Your task to perform on an android device: Open accessibility settings Image 0: 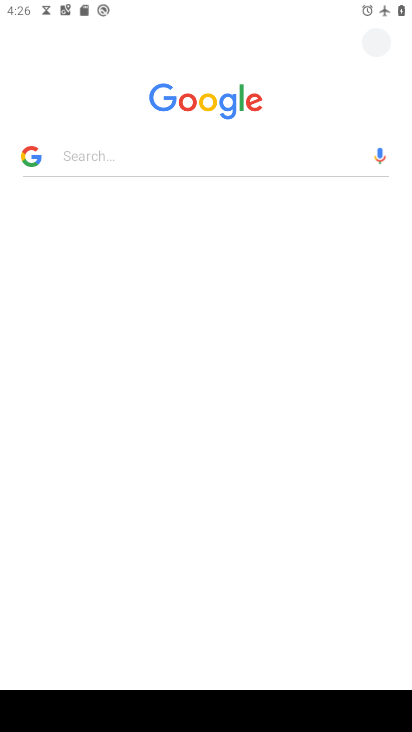
Step 0: click (411, 184)
Your task to perform on an android device: Open accessibility settings Image 1: 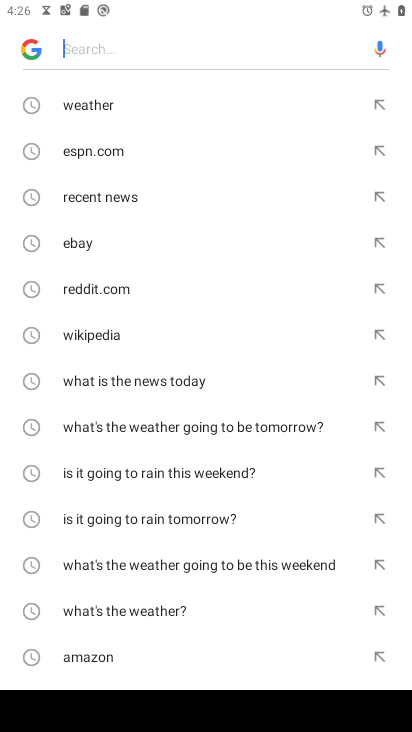
Step 1: press back button
Your task to perform on an android device: Open accessibility settings Image 2: 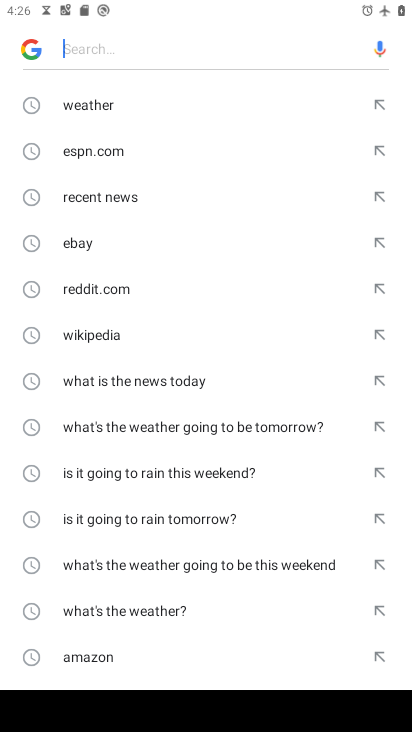
Step 2: press back button
Your task to perform on an android device: Open accessibility settings Image 3: 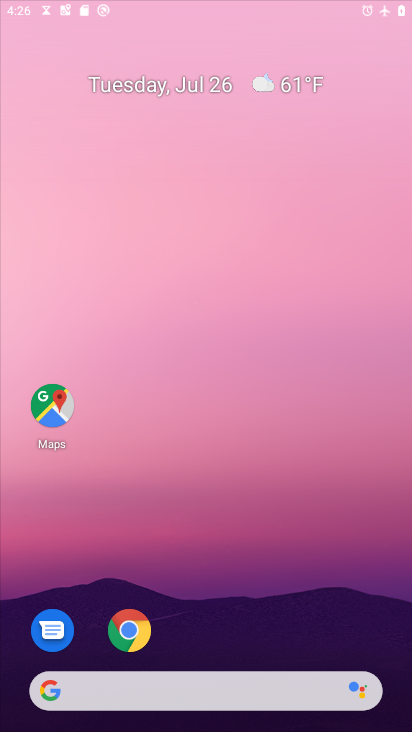
Step 3: press back button
Your task to perform on an android device: Open accessibility settings Image 4: 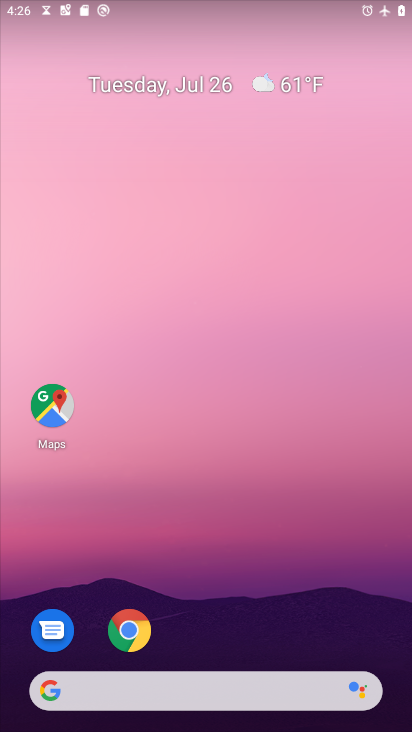
Step 4: drag from (91, 259) to (85, 30)
Your task to perform on an android device: Open accessibility settings Image 5: 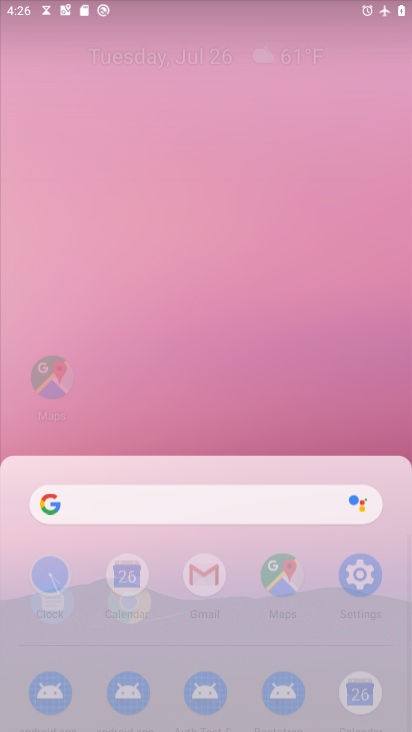
Step 5: drag from (152, 477) to (158, 128)
Your task to perform on an android device: Open accessibility settings Image 6: 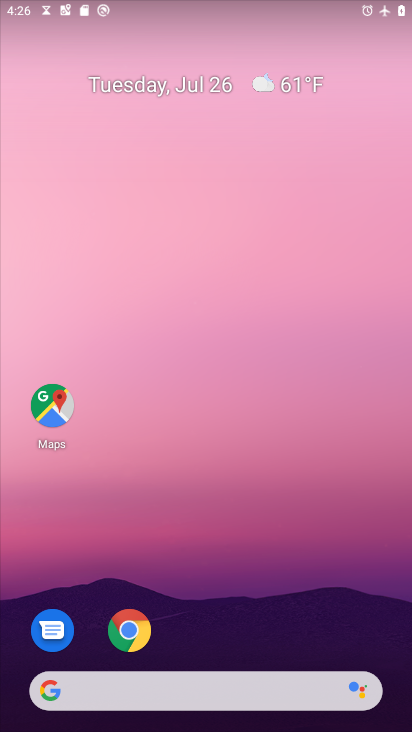
Step 6: click (163, 56)
Your task to perform on an android device: Open accessibility settings Image 7: 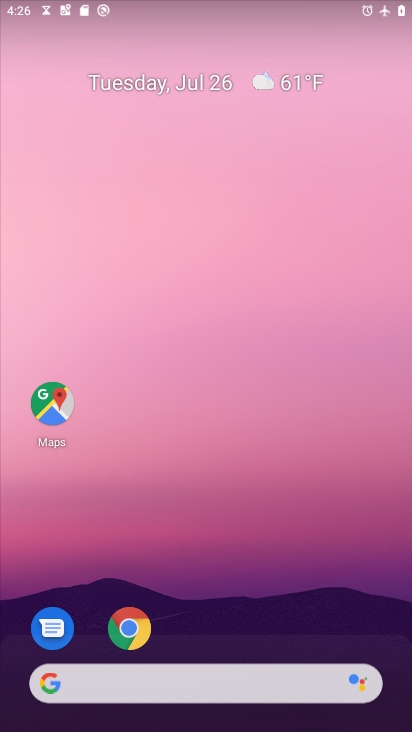
Step 7: drag from (253, 370) to (169, 79)
Your task to perform on an android device: Open accessibility settings Image 8: 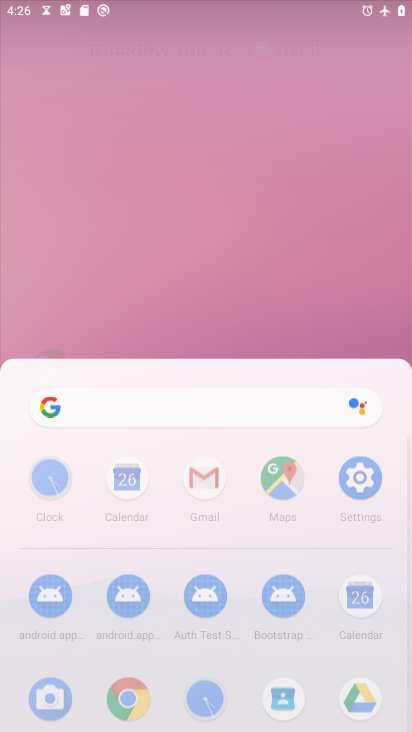
Step 8: drag from (236, 462) to (218, 102)
Your task to perform on an android device: Open accessibility settings Image 9: 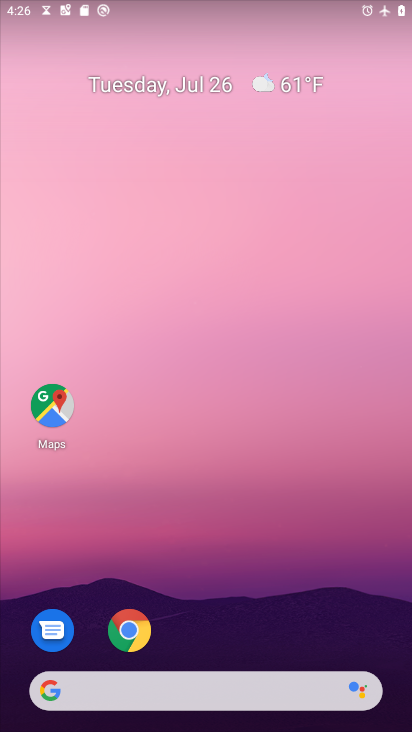
Step 9: drag from (173, 356) to (176, 97)
Your task to perform on an android device: Open accessibility settings Image 10: 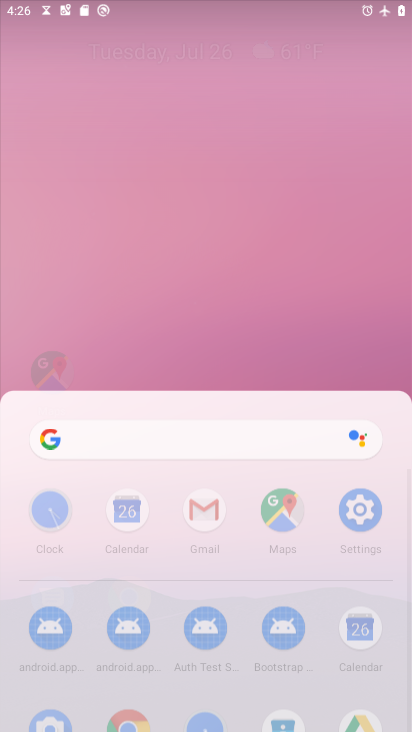
Step 10: drag from (180, 305) to (155, 47)
Your task to perform on an android device: Open accessibility settings Image 11: 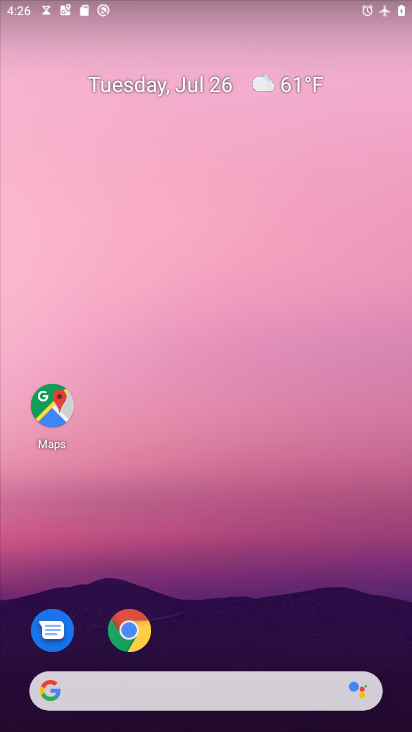
Step 11: drag from (163, 396) to (137, 181)
Your task to perform on an android device: Open accessibility settings Image 12: 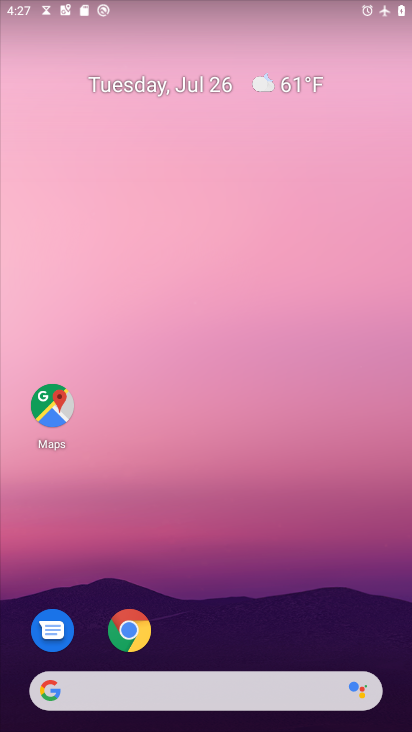
Step 12: drag from (186, 612) to (128, 22)
Your task to perform on an android device: Open accessibility settings Image 13: 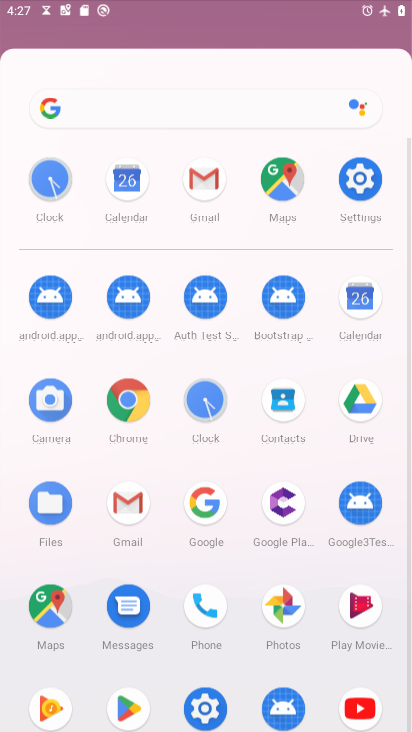
Step 13: drag from (173, 423) to (216, 41)
Your task to perform on an android device: Open accessibility settings Image 14: 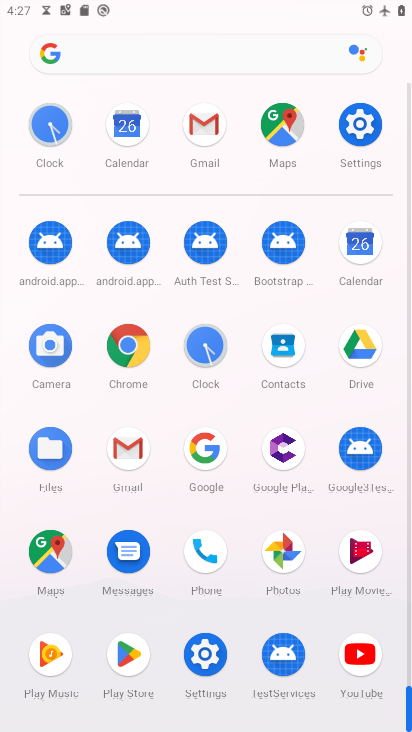
Step 14: drag from (281, 400) to (229, 88)
Your task to perform on an android device: Open accessibility settings Image 15: 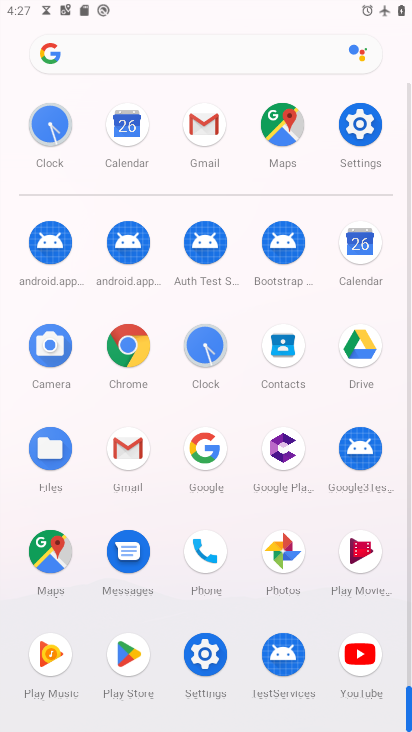
Step 15: click (356, 136)
Your task to perform on an android device: Open accessibility settings Image 16: 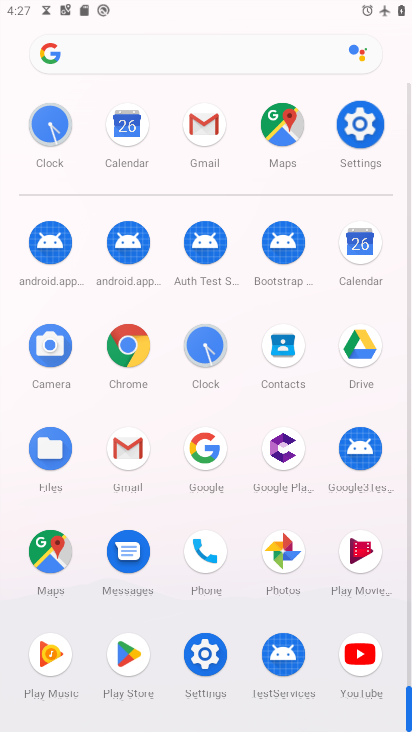
Step 16: click (359, 132)
Your task to perform on an android device: Open accessibility settings Image 17: 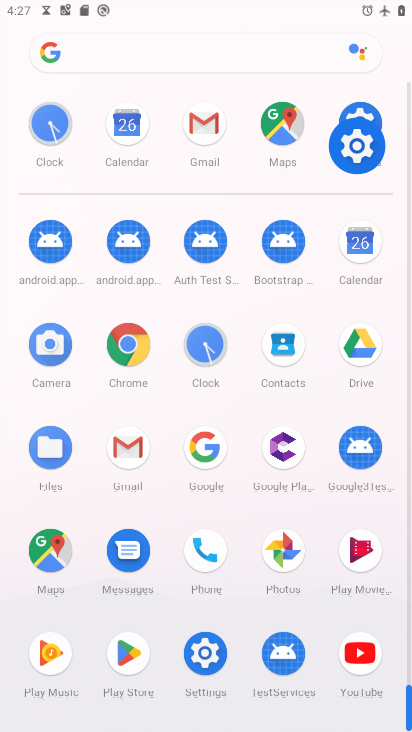
Step 17: click (362, 134)
Your task to perform on an android device: Open accessibility settings Image 18: 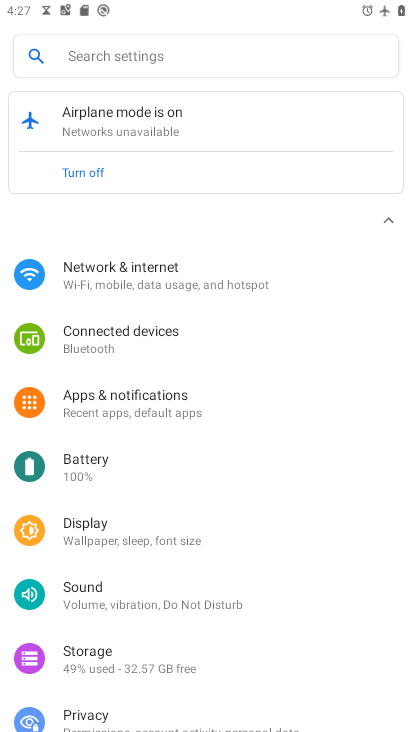
Step 18: drag from (151, 594) to (199, 197)
Your task to perform on an android device: Open accessibility settings Image 19: 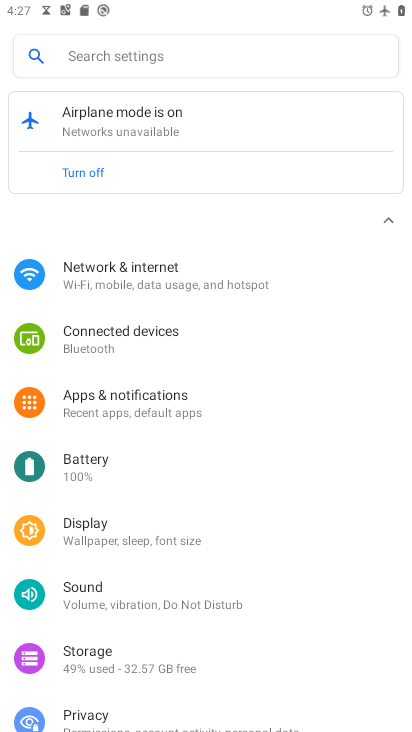
Step 19: drag from (147, 288) to (137, 62)
Your task to perform on an android device: Open accessibility settings Image 20: 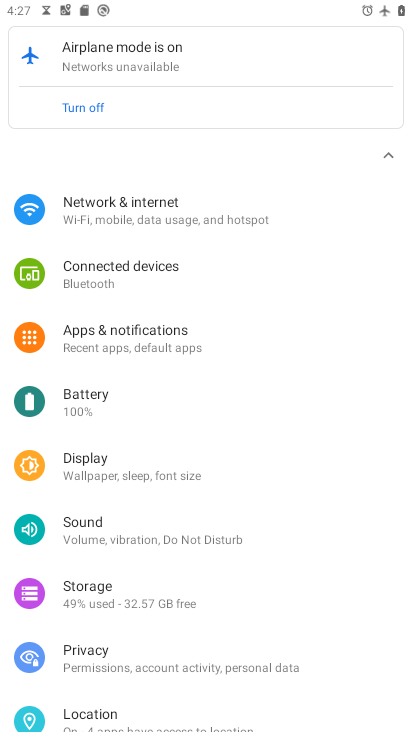
Step 20: drag from (145, 271) to (124, 92)
Your task to perform on an android device: Open accessibility settings Image 21: 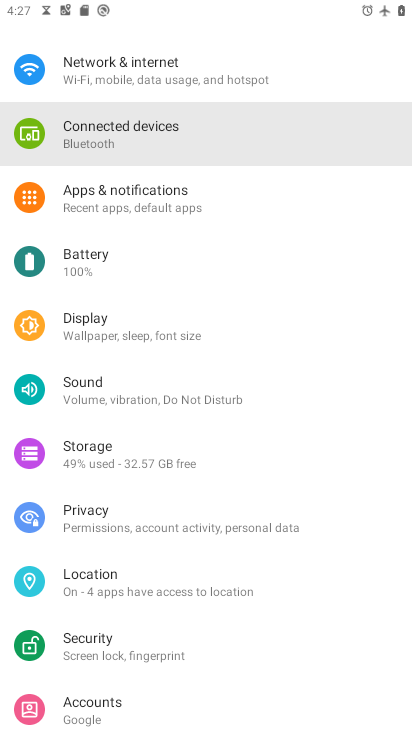
Step 21: drag from (117, 409) to (113, 50)
Your task to perform on an android device: Open accessibility settings Image 22: 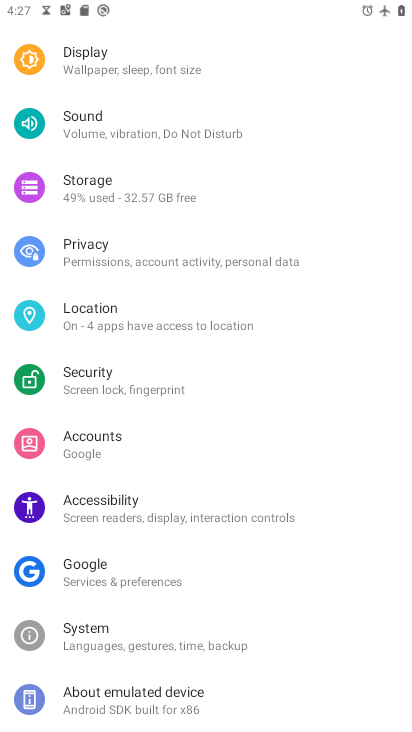
Step 22: drag from (149, 462) to (116, 177)
Your task to perform on an android device: Open accessibility settings Image 23: 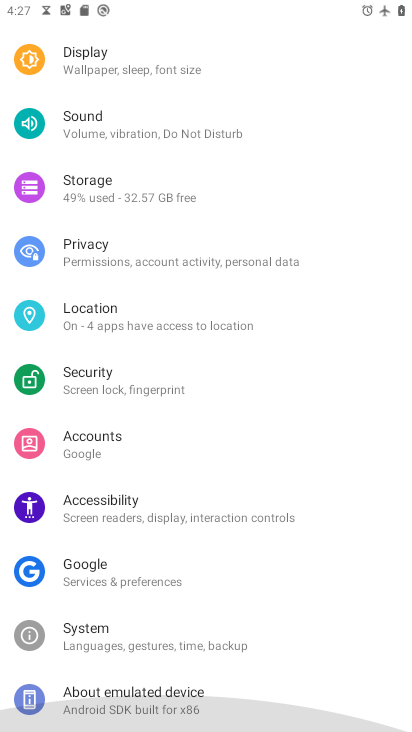
Step 23: drag from (152, 433) to (107, 107)
Your task to perform on an android device: Open accessibility settings Image 24: 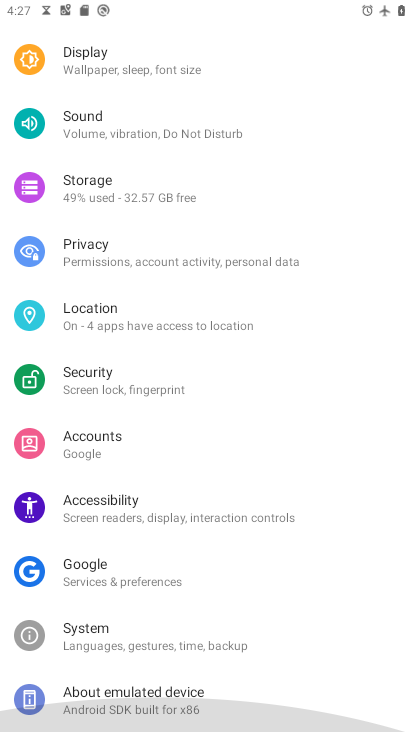
Step 24: drag from (160, 464) to (133, 148)
Your task to perform on an android device: Open accessibility settings Image 25: 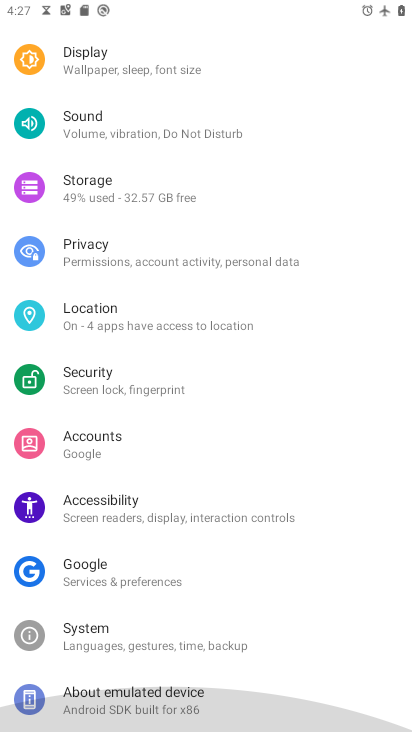
Step 25: drag from (181, 541) to (207, 319)
Your task to perform on an android device: Open accessibility settings Image 26: 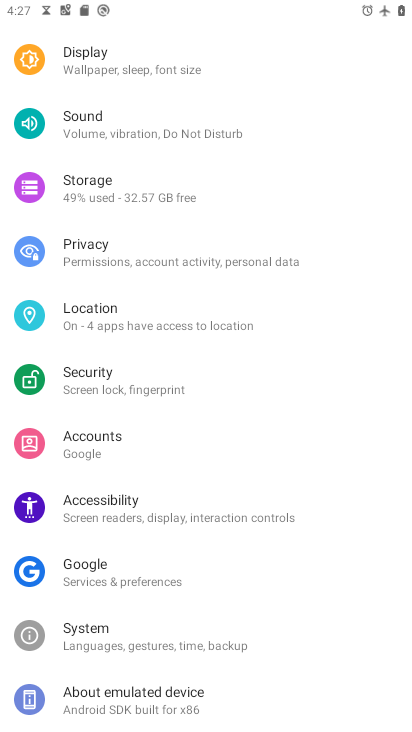
Step 26: click (107, 704)
Your task to perform on an android device: Open accessibility settings Image 27: 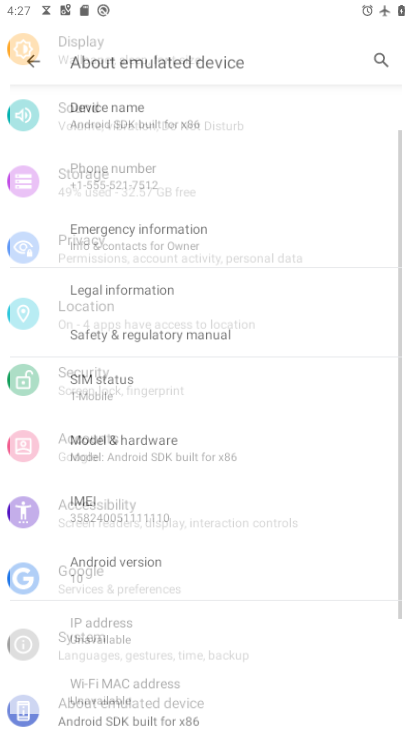
Step 27: click (106, 703)
Your task to perform on an android device: Open accessibility settings Image 28: 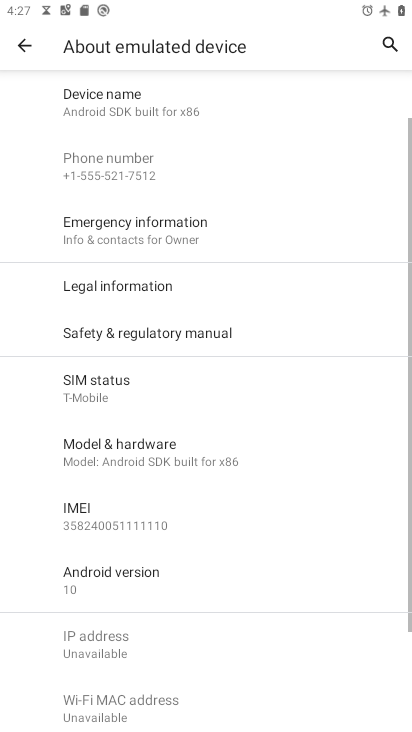
Step 28: click (106, 703)
Your task to perform on an android device: Open accessibility settings Image 29: 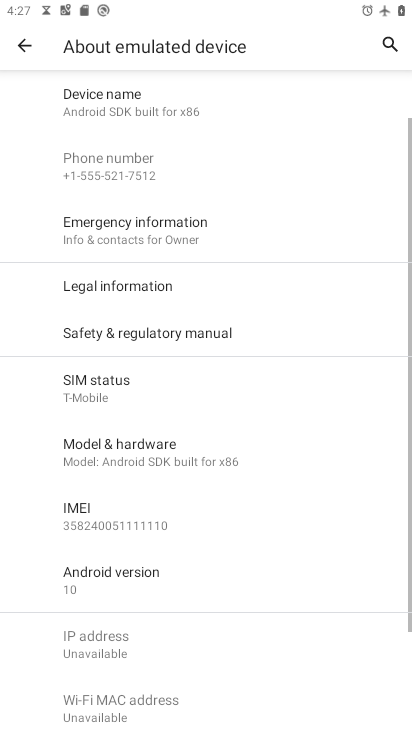
Step 29: click (117, 711)
Your task to perform on an android device: Open accessibility settings Image 30: 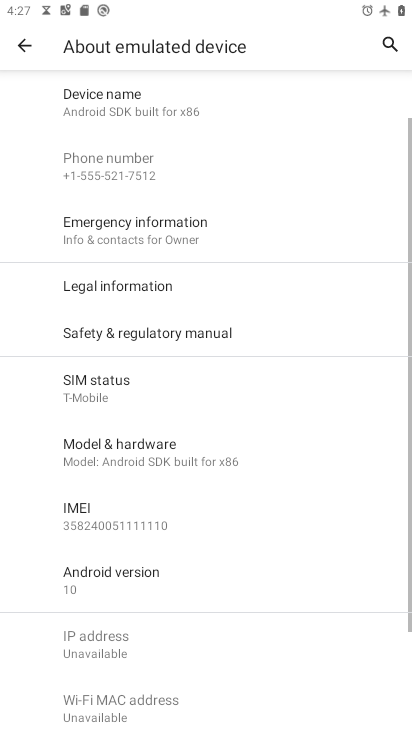
Step 30: task complete